Your task to perform on an android device: Open Google Maps and go to "Timeline" Image 0: 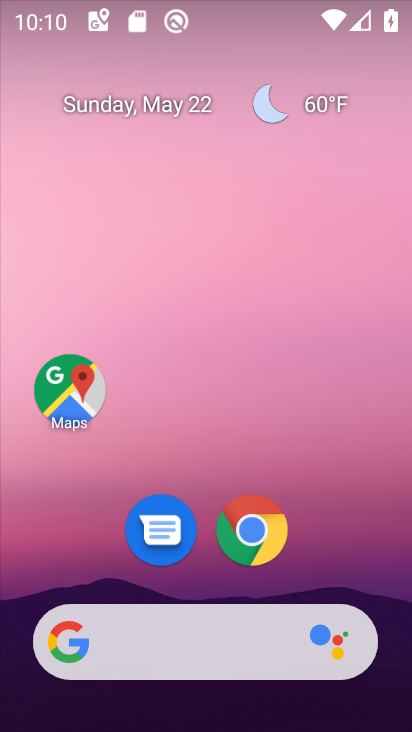
Step 0: click (96, 394)
Your task to perform on an android device: Open Google Maps and go to "Timeline" Image 1: 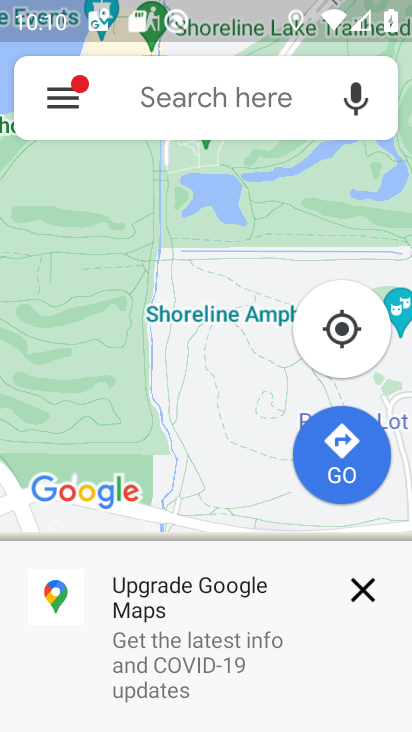
Step 1: click (68, 93)
Your task to perform on an android device: Open Google Maps and go to "Timeline" Image 2: 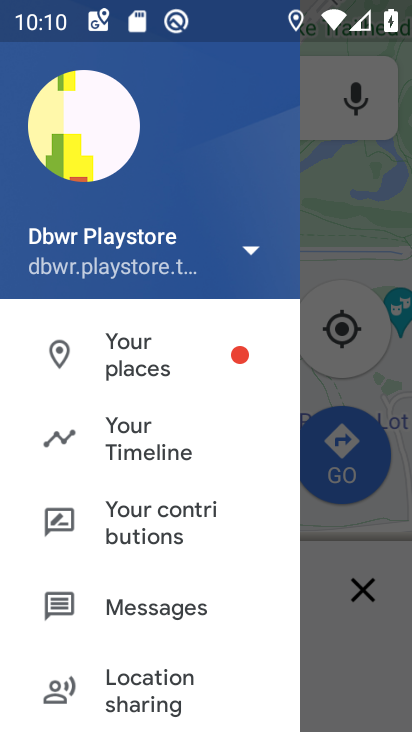
Step 2: click (123, 449)
Your task to perform on an android device: Open Google Maps and go to "Timeline" Image 3: 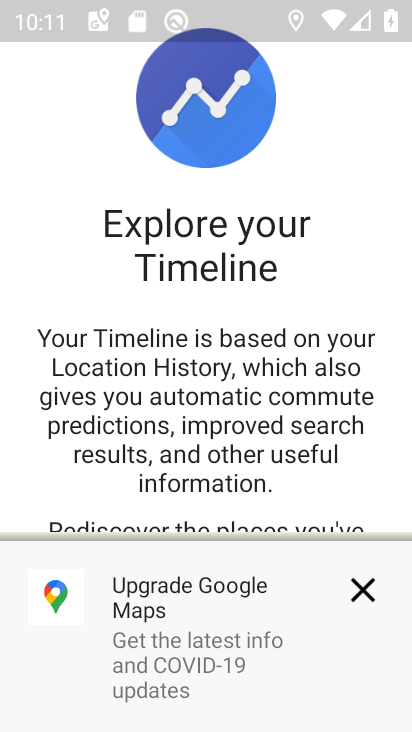
Step 3: drag from (239, 483) to (249, 240)
Your task to perform on an android device: Open Google Maps and go to "Timeline" Image 4: 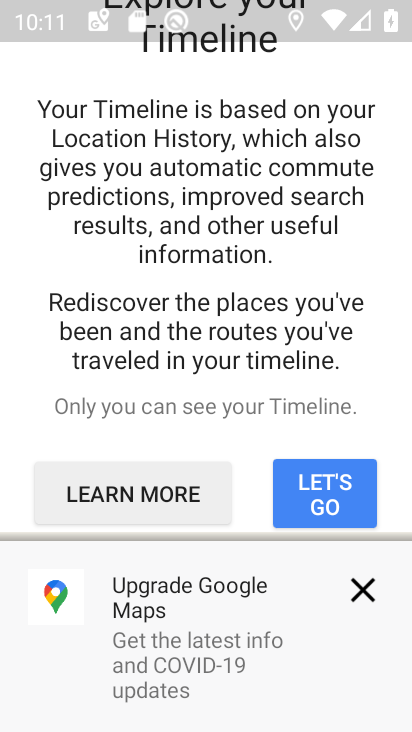
Step 4: click (307, 482)
Your task to perform on an android device: Open Google Maps and go to "Timeline" Image 5: 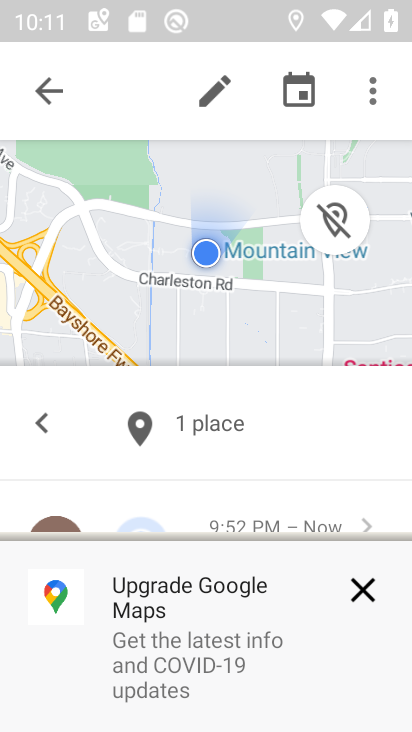
Step 5: drag from (238, 322) to (240, 158)
Your task to perform on an android device: Open Google Maps and go to "Timeline" Image 6: 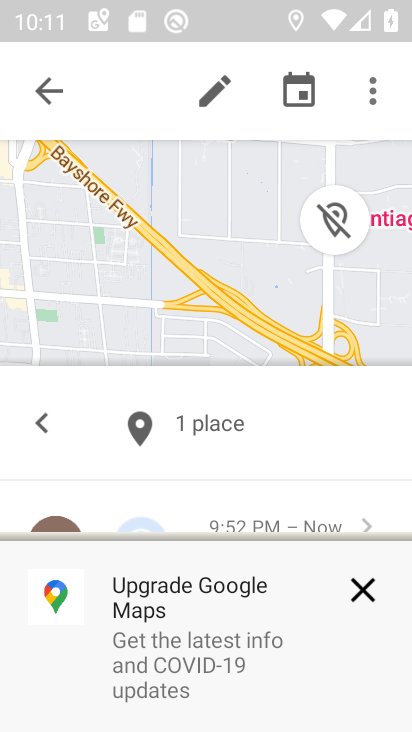
Step 6: click (353, 591)
Your task to perform on an android device: Open Google Maps and go to "Timeline" Image 7: 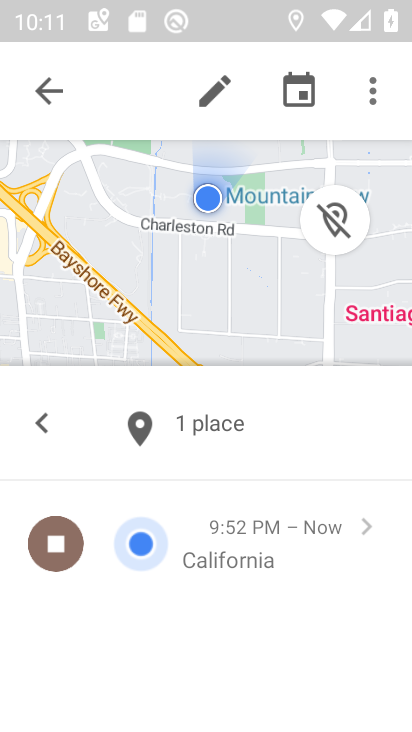
Step 7: task complete